Your task to perform on an android device: check storage Image 0: 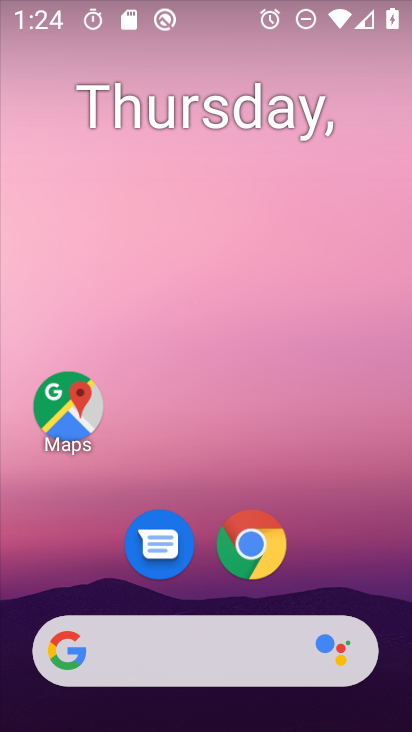
Step 0: drag from (145, 508) to (357, 208)
Your task to perform on an android device: check storage Image 1: 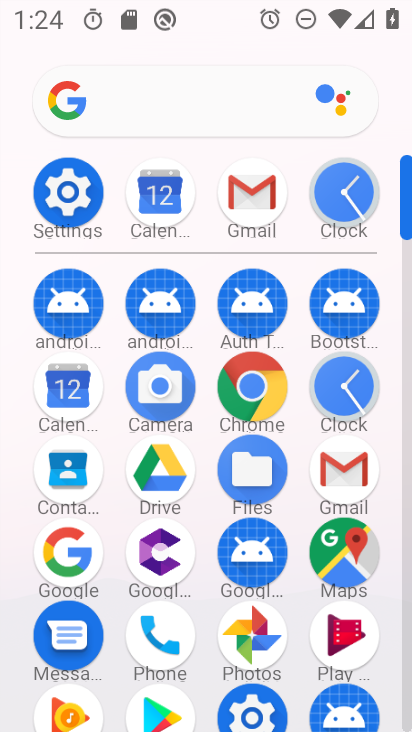
Step 1: click (64, 199)
Your task to perform on an android device: check storage Image 2: 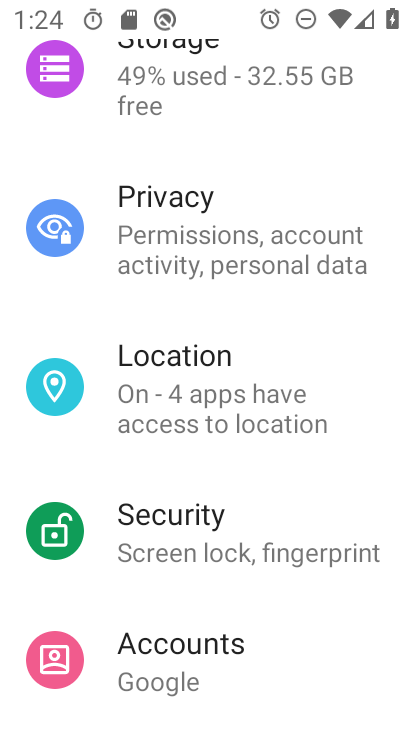
Step 2: drag from (145, 157) to (152, 596)
Your task to perform on an android device: check storage Image 3: 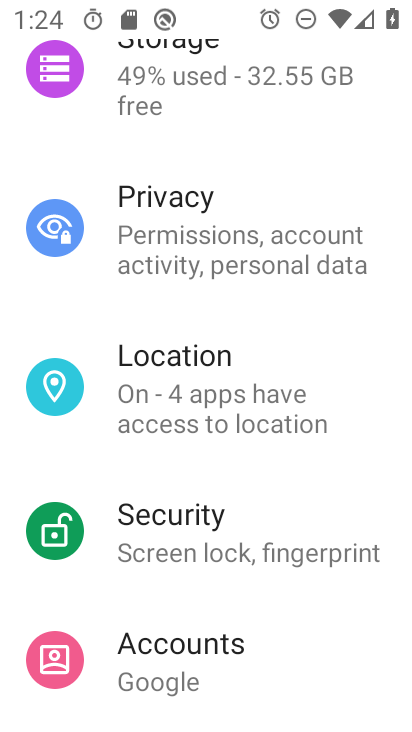
Step 3: click (183, 80)
Your task to perform on an android device: check storage Image 4: 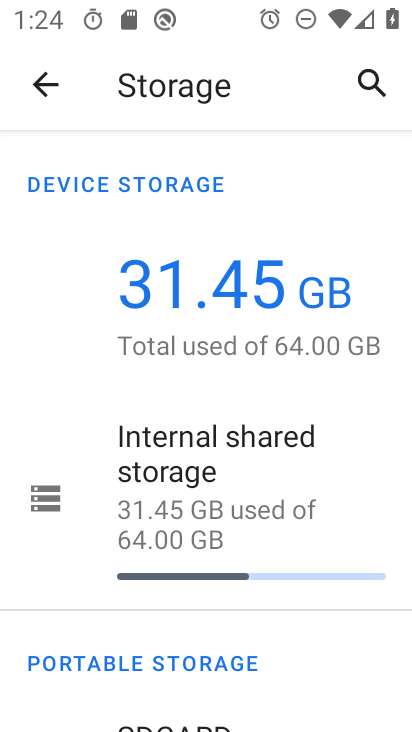
Step 4: task complete